Your task to perform on an android device: open wifi settings Image 0: 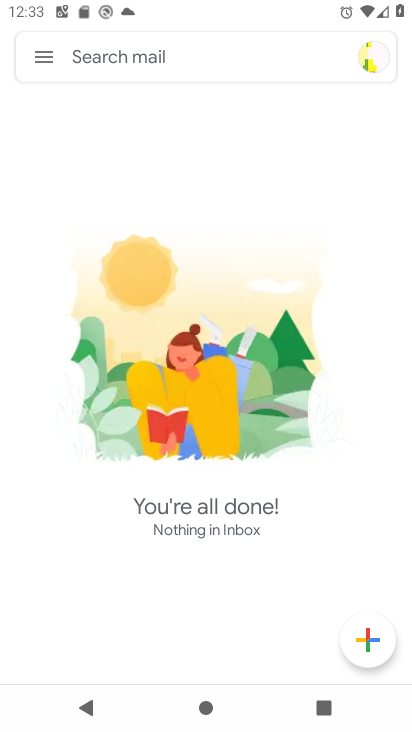
Step 0: press home button
Your task to perform on an android device: open wifi settings Image 1: 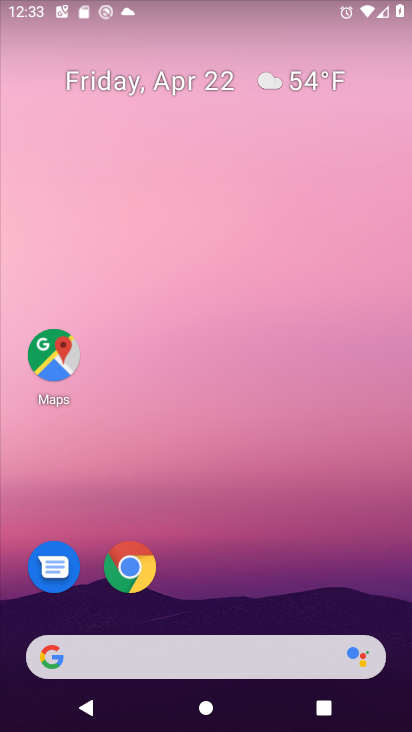
Step 1: drag from (239, 611) to (274, 114)
Your task to perform on an android device: open wifi settings Image 2: 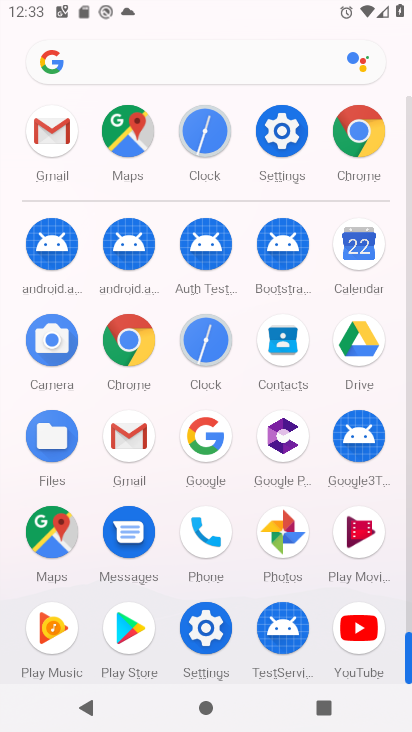
Step 2: click (287, 132)
Your task to perform on an android device: open wifi settings Image 3: 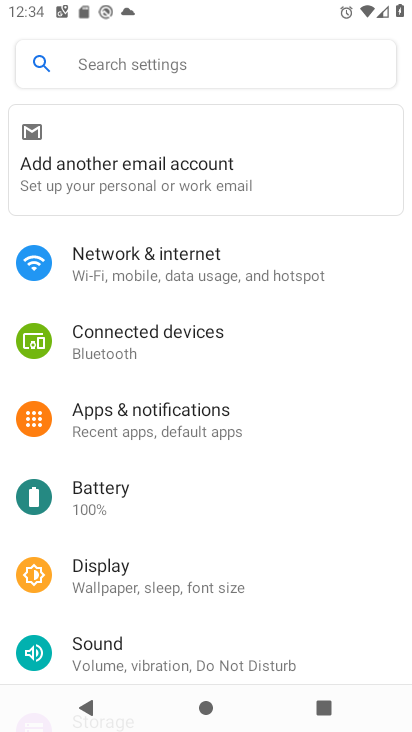
Step 3: click (236, 269)
Your task to perform on an android device: open wifi settings Image 4: 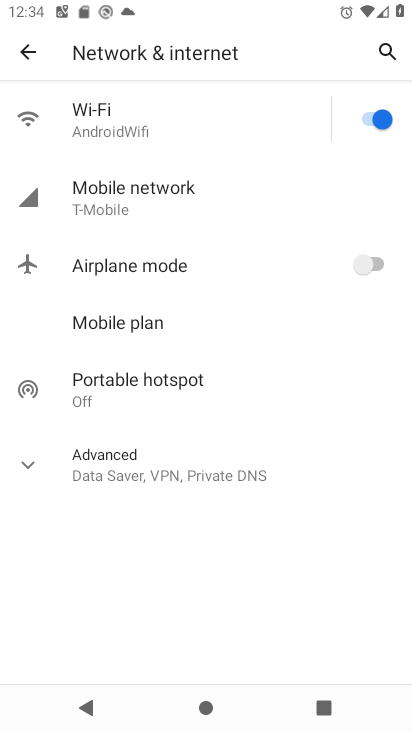
Step 4: click (209, 125)
Your task to perform on an android device: open wifi settings Image 5: 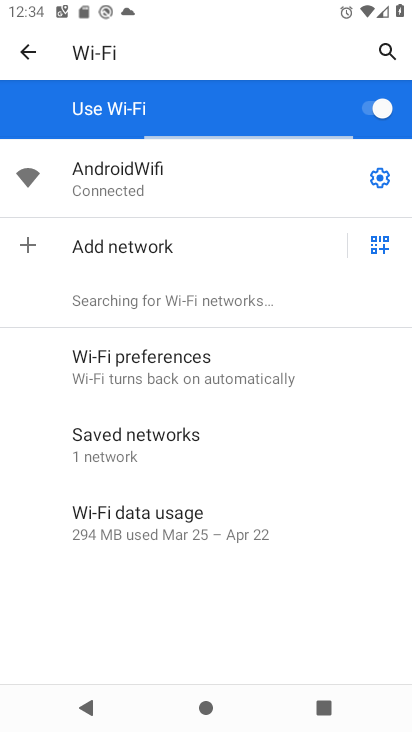
Step 5: task complete